Your task to perform on an android device: toggle improve location accuracy Image 0: 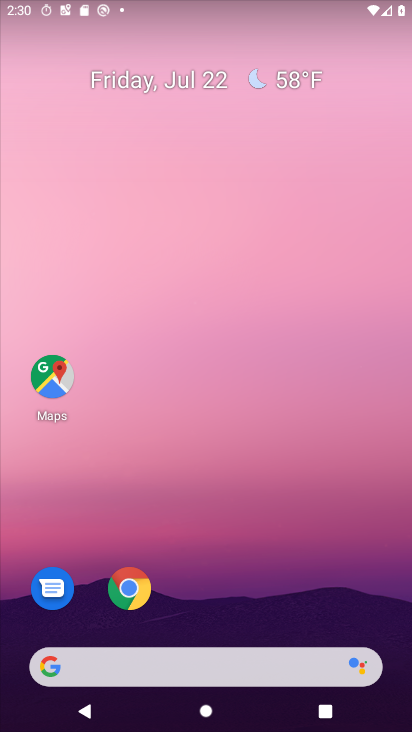
Step 0: drag from (317, 581) to (411, 722)
Your task to perform on an android device: toggle improve location accuracy Image 1: 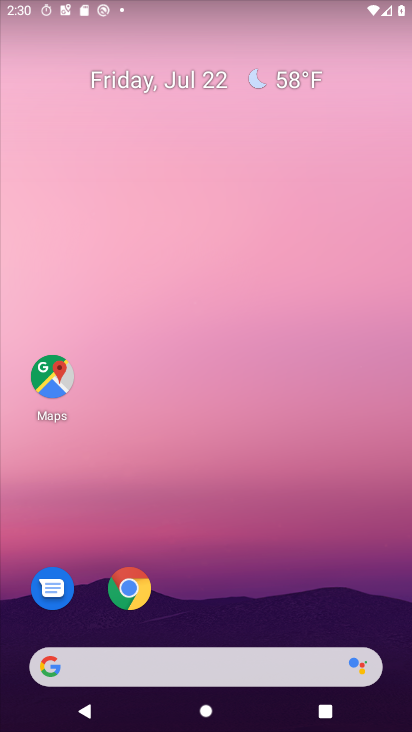
Step 1: drag from (267, 597) to (270, 50)
Your task to perform on an android device: toggle improve location accuracy Image 2: 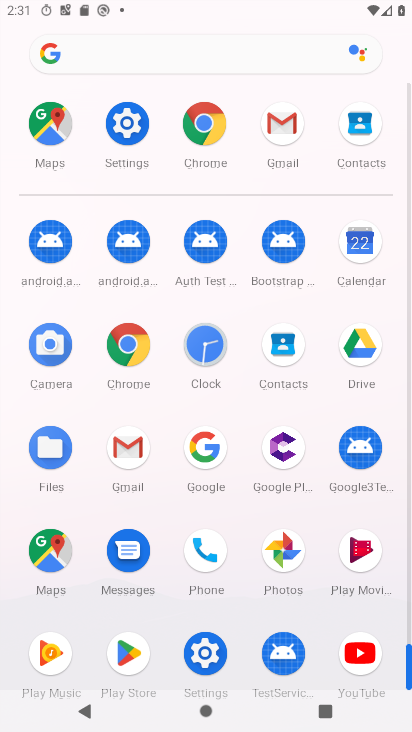
Step 2: click (199, 649)
Your task to perform on an android device: toggle improve location accuracy Image 3: 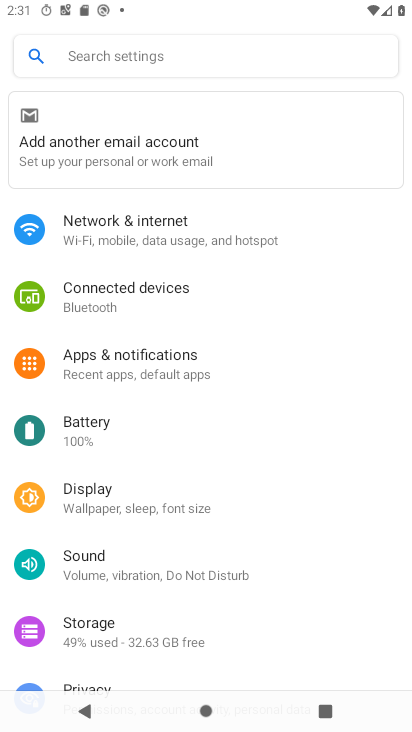
Step 3: drag from (109, 626) to (162, 271)
Your task to perform on an android device: toggle improve location accuracy Image 4: 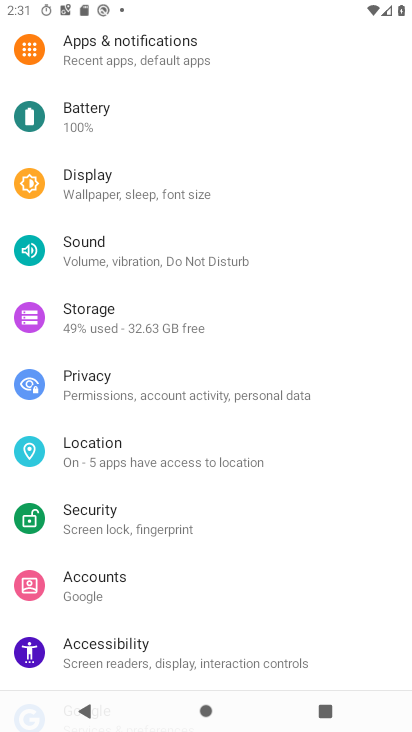
Step 4: click (115, 446)
Your task to perform on an android device: toggle improve location accuracy Image 5: 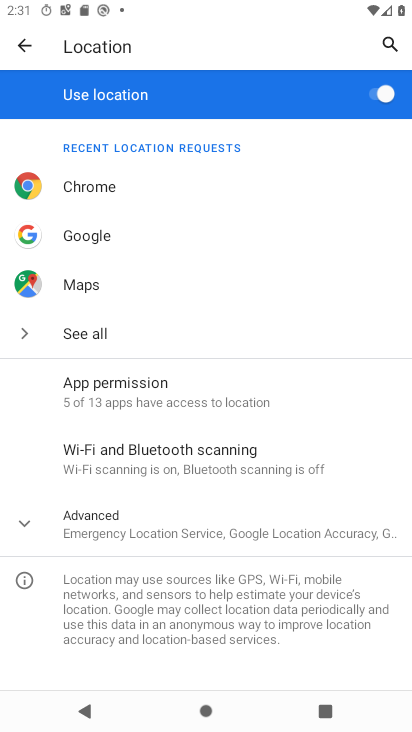
Step 5: click (95, 530)
Your task to perform on an android device: toggle improve location accuracy Image 6: 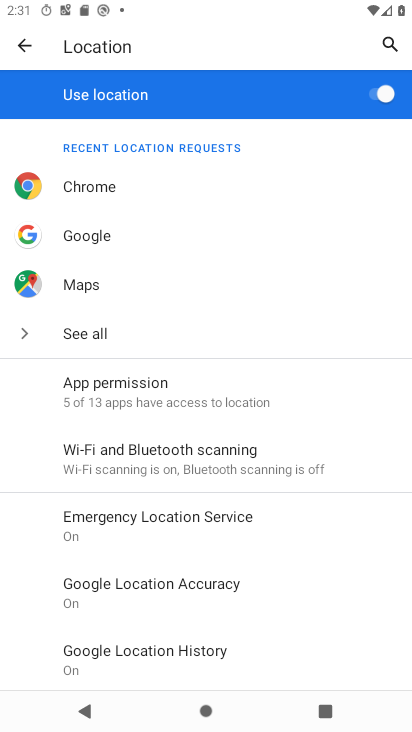
Step 6: click (155, 589)
Your task to perform on an android device: toggle improve location accuracy Image 7: 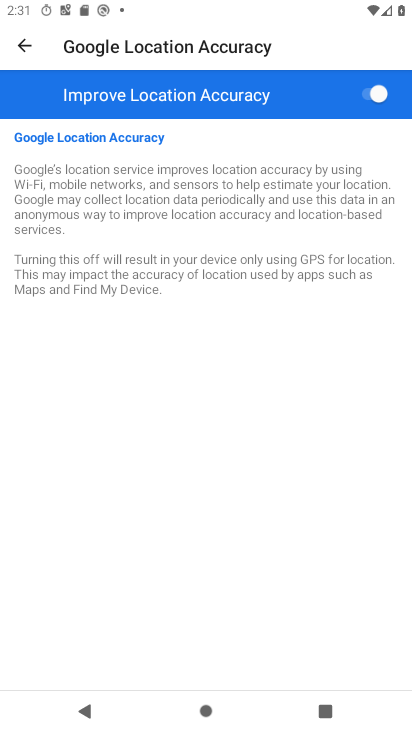
Step 7: click (313, 84)
Your task to perform on an android device: toggle improve location accuracy Image 8: 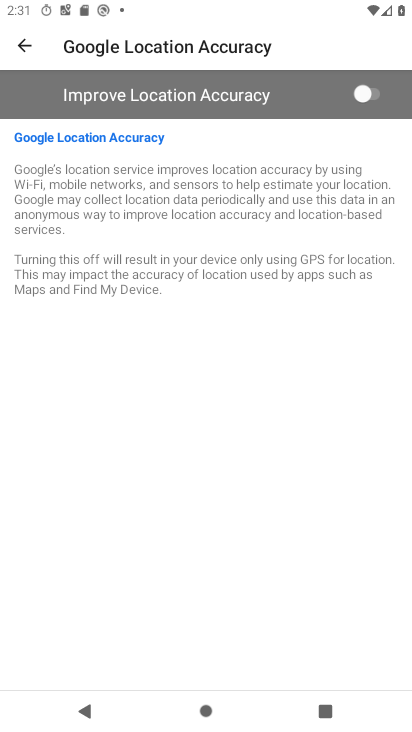
Step 8: task complete